Your task to perform on an android device: turn off sleep mode Image 0: 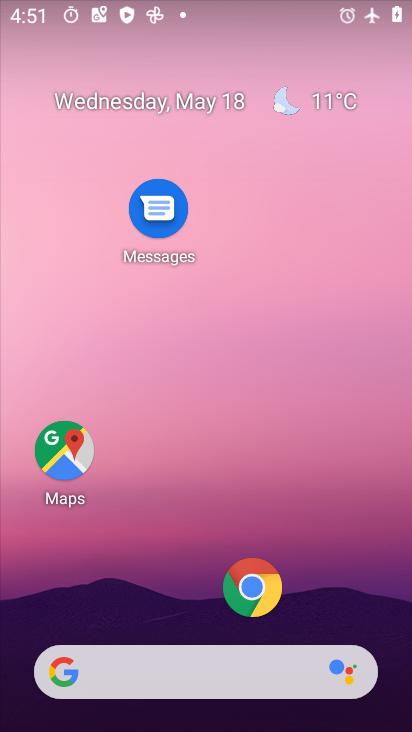
Step 0: drag from (316, 476) to (357, 84)
Your task to perform on an android device: turn off sleep mode Image 1: 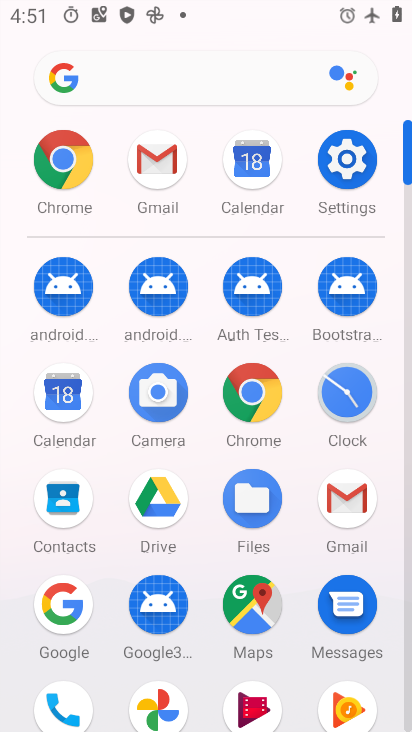
Step 1: click (349, 185)
Your task to perform on an android device: turn off sleep mode Image 2: 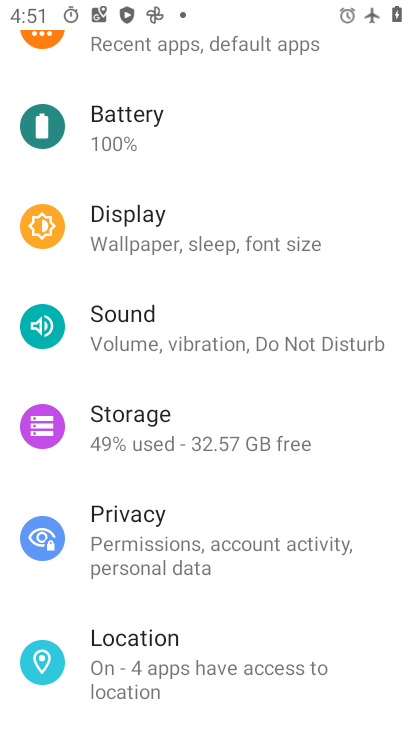
Step 2: click (208, 236)
Your task to perform on an android device: turn off sleep mode Image 3: 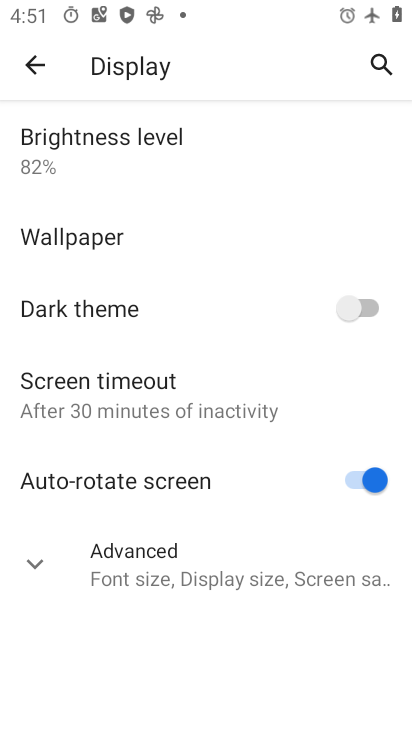
Step 3: task complete